Your task to perform on an android device: Open the stopwatch Image 0: 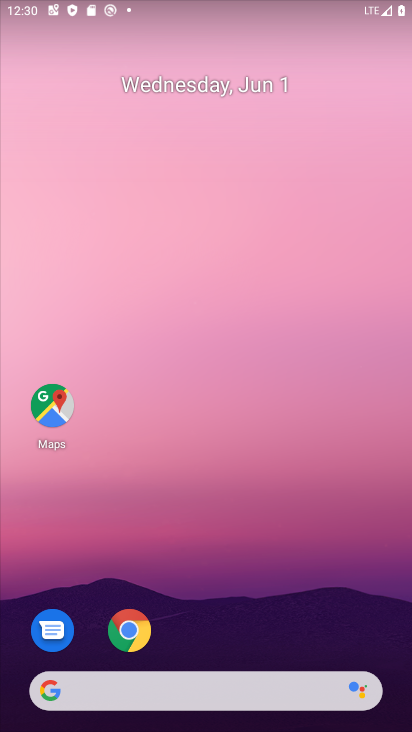
Step 0: press home button
Your task to perform on an android device: Open the stopwatch Image 1: 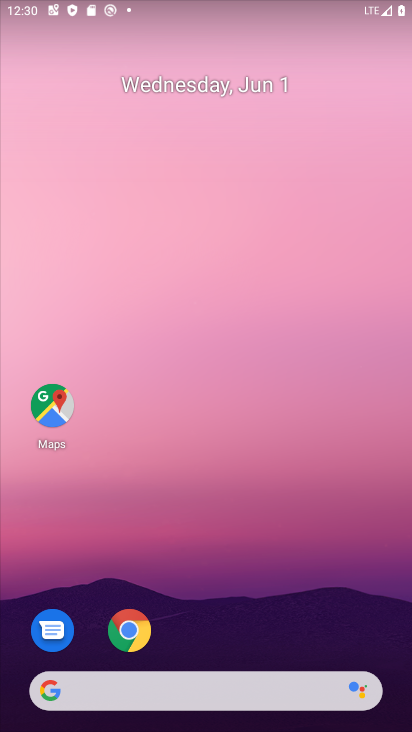
Step 1: drag from (275, 621) to (326, 169)
Your task to perform on an android device: Open the stopwatch Image 2: 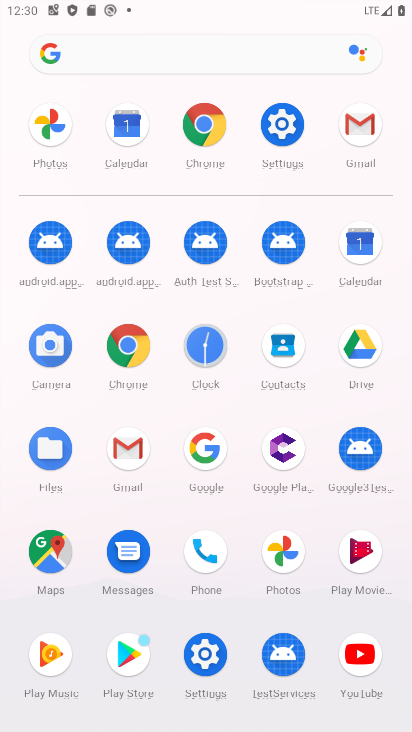
Step 2: click (201, 350)
Your task to perform on an android device: Open the stopwatch Image 3: 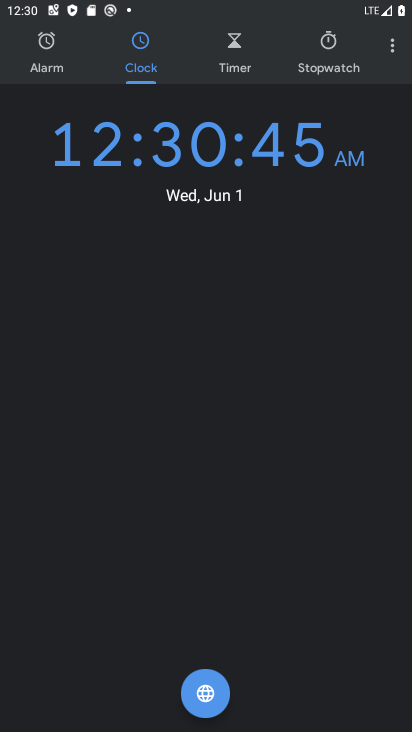
Step 3: click (326, 42)
Your task to perform on an android device: Open the stopwatch Image 4: 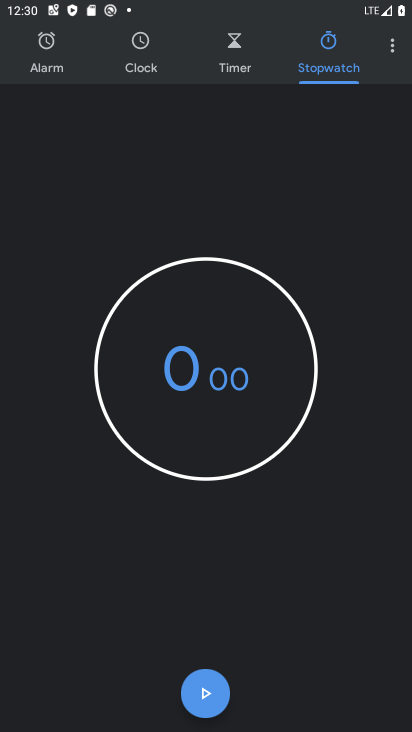
Step 4: task complete